Your task to perform on an android device: Go to Maps Image 0: 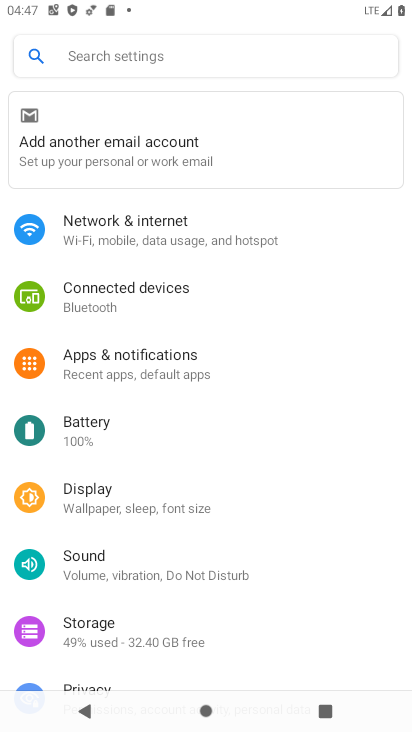
Step 0: press back button
Your task to perform on an android device: Go to Maps Image 1: 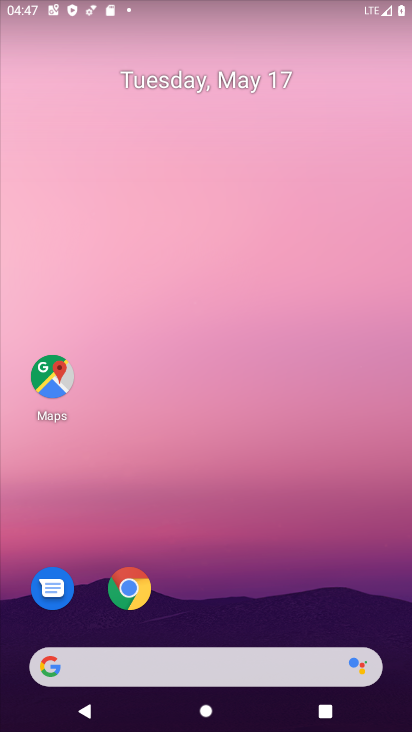
Step 1: click (50, 379)
Your task to perform on an android device: Go to Maps Image 2: 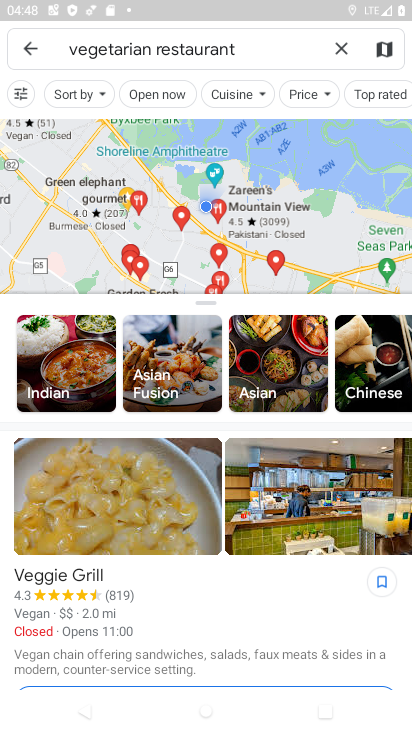
Step 2: click (341, 51)
Your task to perform on an android device: Go to Maps Image 3: 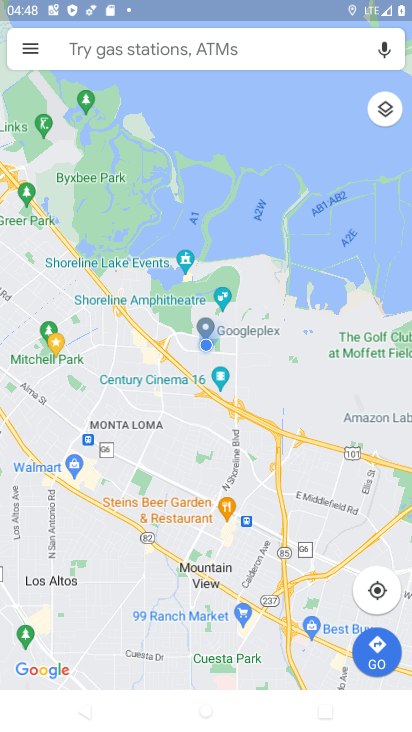
Step 3: task complete